Your task to perform on an android device: turn pop-ups on in chrome Image 0: 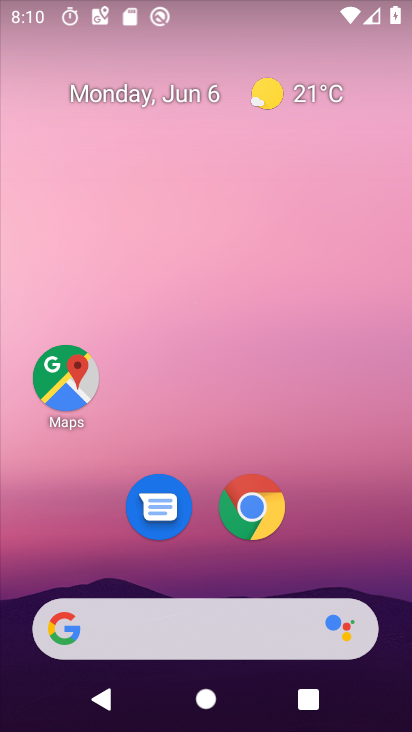
Step 0: click (243, 517)
Your task to perform on an android device: turn pop-ups on in chrome Image 1: 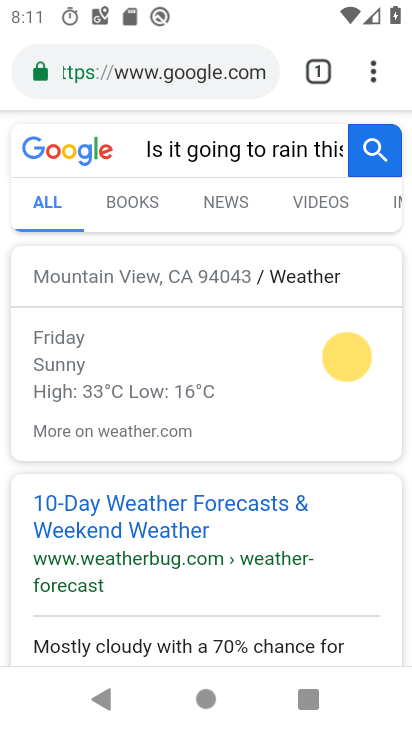
Step 1: drag from (373, 66) to (129, 519)
Your task to perform on an android device: turn pop-ups on in chrome Image 2: 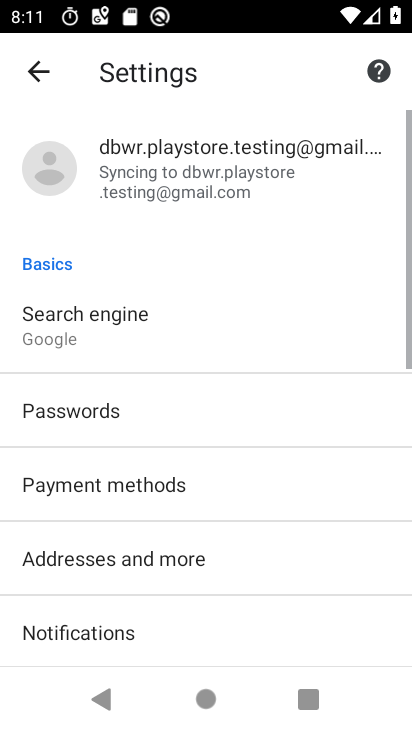
Step 2: drag from (330, 649) to (272, 115)
Your task to perform on an android device: turn pop-ups on in chrome Image 3: 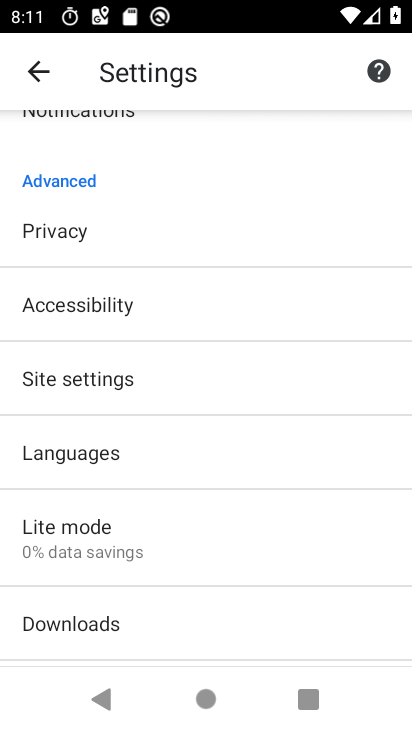
Step 3: click (57, 360)
Your task to perform on an android device: turn pop-ups on in chrome Image 4: 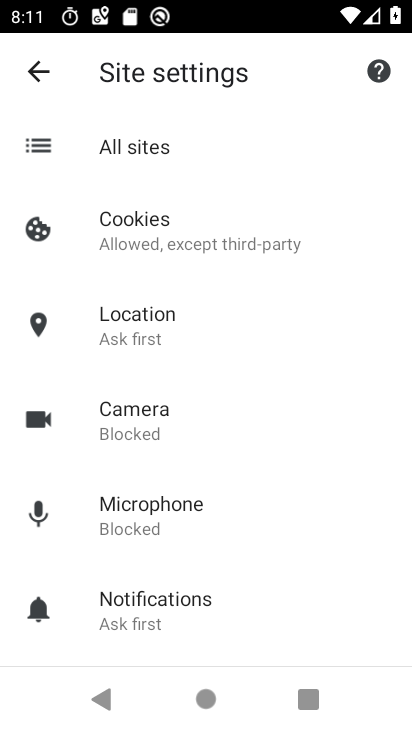
Step 4: drag from (236, 602) to (193, 198)
Your task to perform on an android device: turn pop-ups on in chrome Image 5: 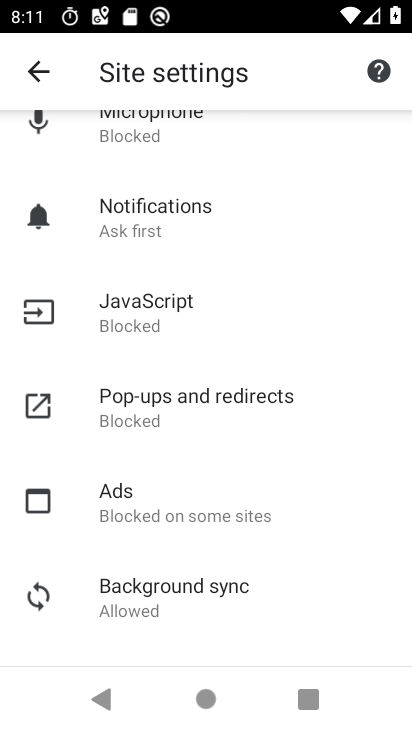
Step 5: click (258, 385)
Your task to perform on an android device: turn pop-ups on in chrome Image 6: 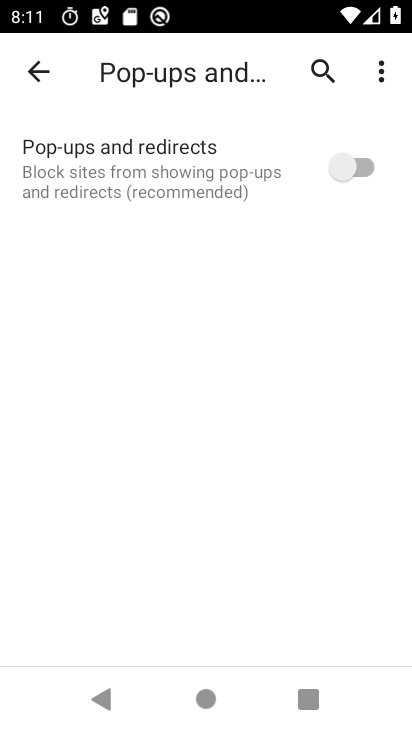
Step 6: click (166, 149)
Your task to perform on an android device: turn pop-ups on in chrome Image 7: 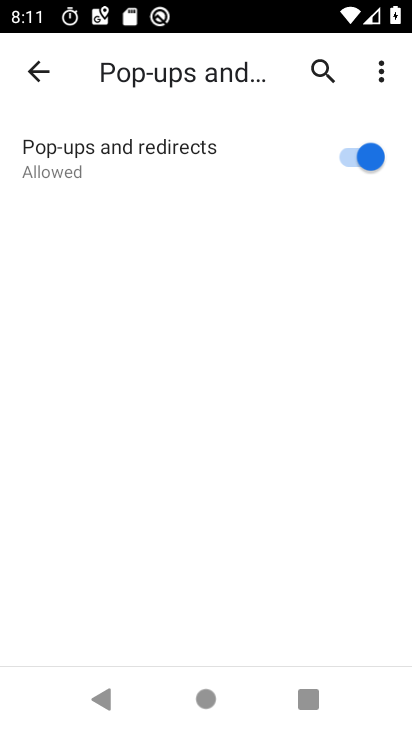
Step 7: task complete